Your task to perform on an android device: Open Google Chrome Image 0: 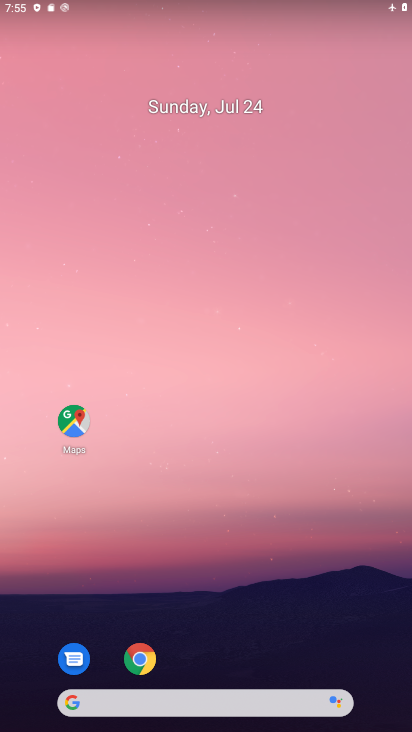
Step 0: click (141, 659)
Your task to perform on an android device: Open Google Chrome Image 1: 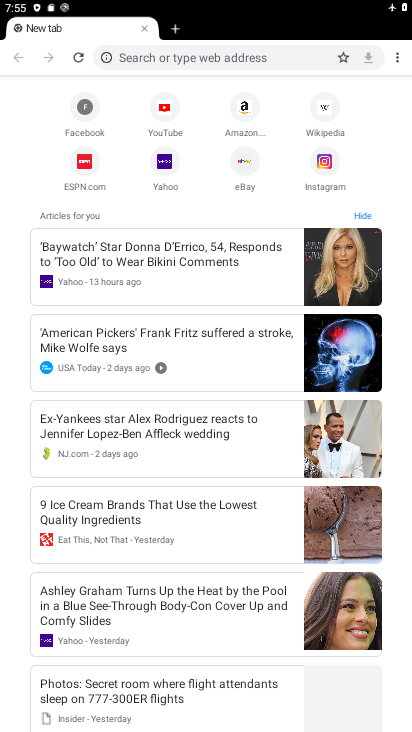
Step 1: task complete